Your task to perform on an android device: set an alarm Image 0: 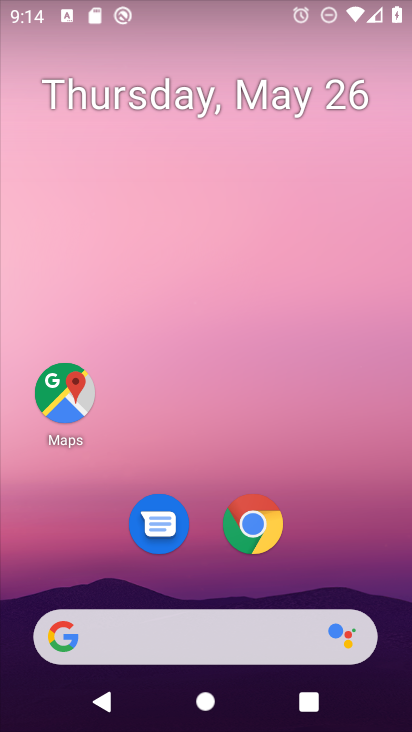
Step 0: drag from (313, 538) to (288, 55)
Your task to perform on an android device: set an alarm Image 1: 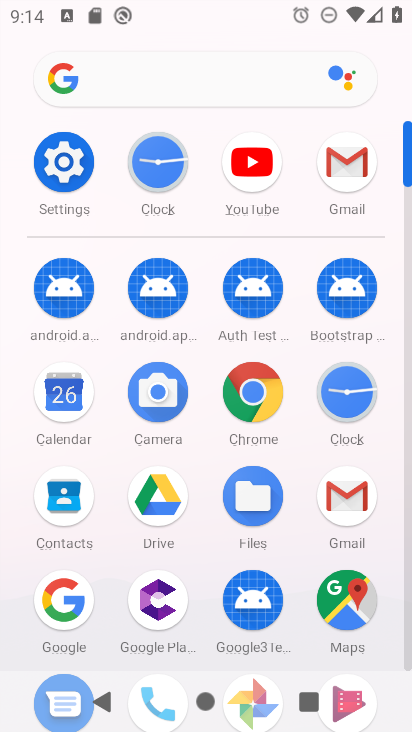
Step 1: click (156, 174)
Your task to perform on an android device: set an alarm Image 2: 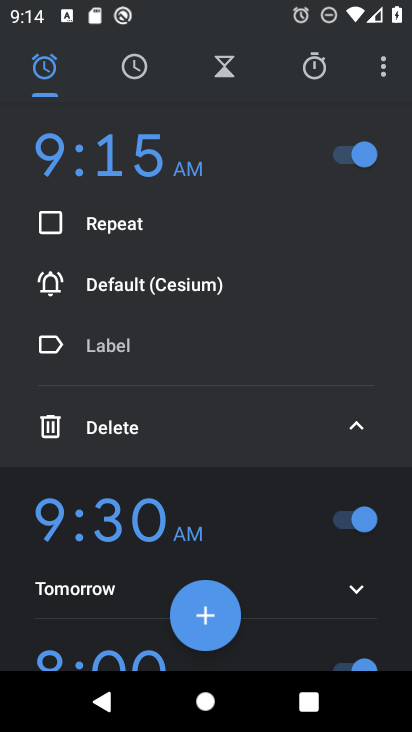
Step 2: click (208, 626)
Your task to perform on an android device: set an alarm Image 3: 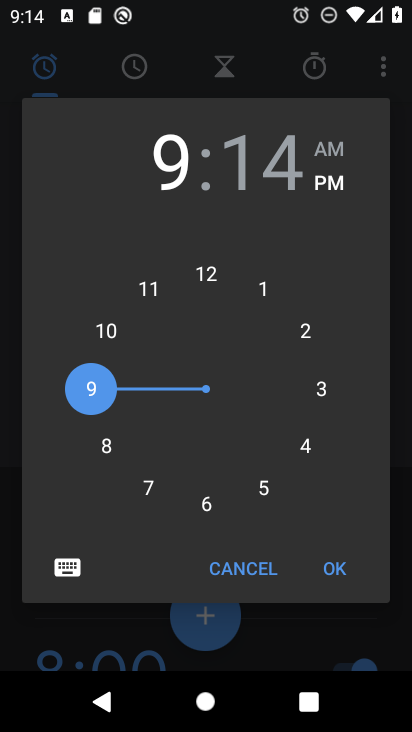
Step 3: click (113, 331)
Your task to perform on an android device: set an alarm Image 4: 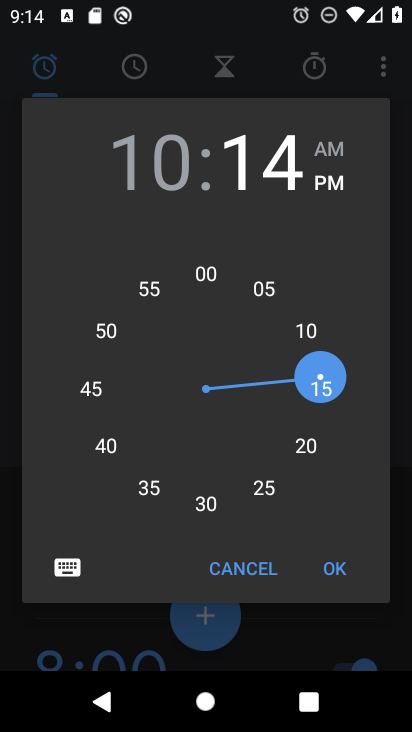
Step 4: click (206, 280)
Your task to perform on an android device: set an alarm Image 5: 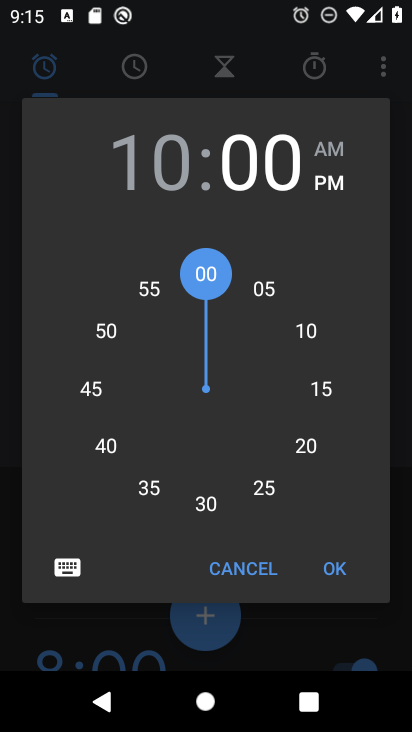
Step 5: click (332, 143)
Your task to perform on an android device: set an alarm Image 6: 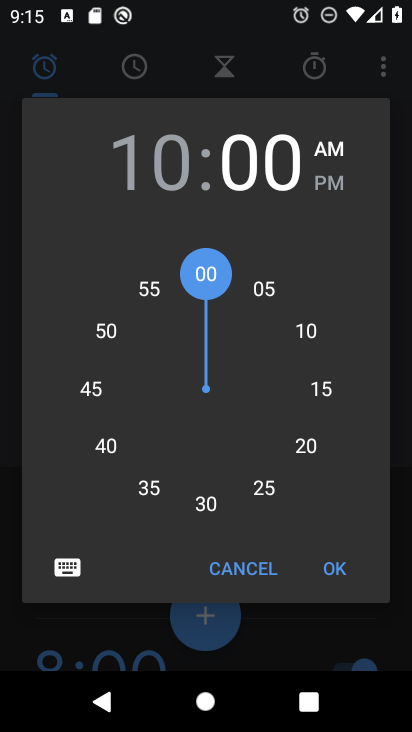
Step 6: click (337, 569)
Your task to perform on an android device: set an alarm Image 7: 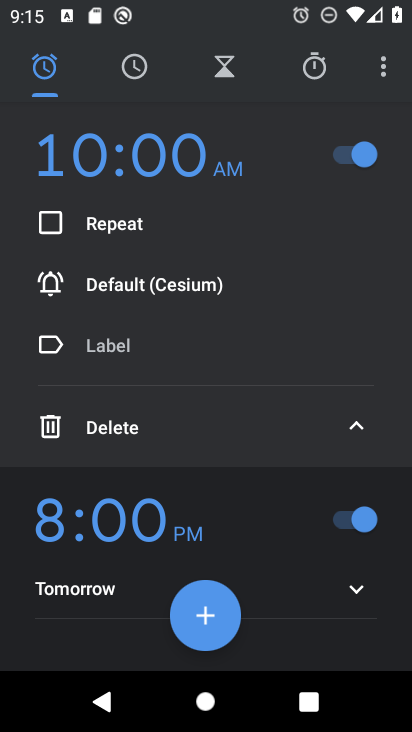
Step 7: task complete